Your task to perform on an android device: Go to Google maps Image 0: 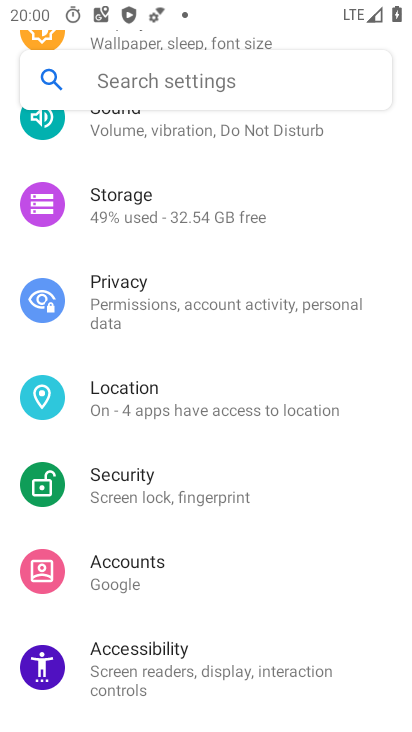
Step 0: press home button
Your task to perform on an android device: Go to Google maps Image 1: 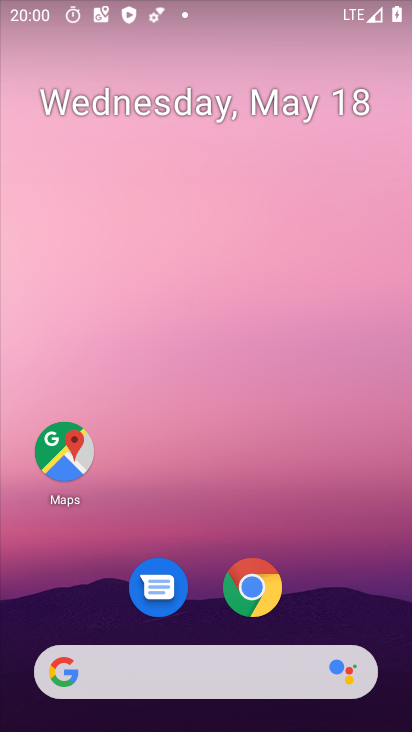
Step 1: click (49, 454)
Your task to perform on an android device: Go to Google maps Image 2: 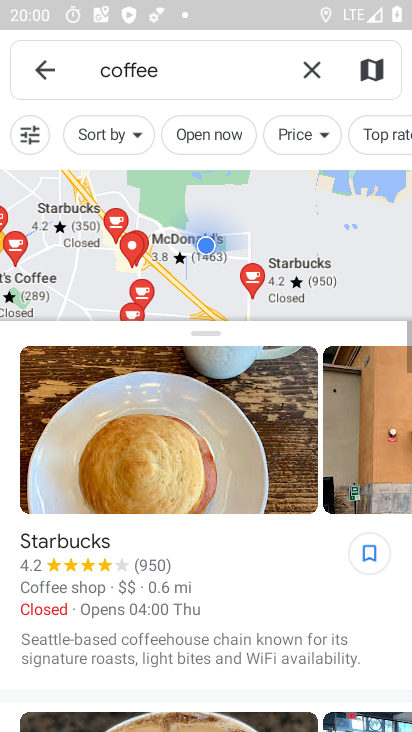
Step 2: task complete